Your task to perform on an android device: Toggle the flashlight Image 0: 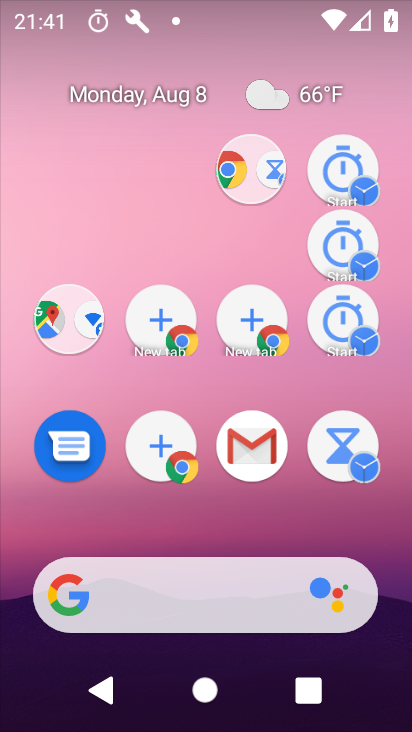
Step 0: drag from (290, 662) to (182, 129)
Your task to perform on an android device: Toggle the flashlight Image 1: 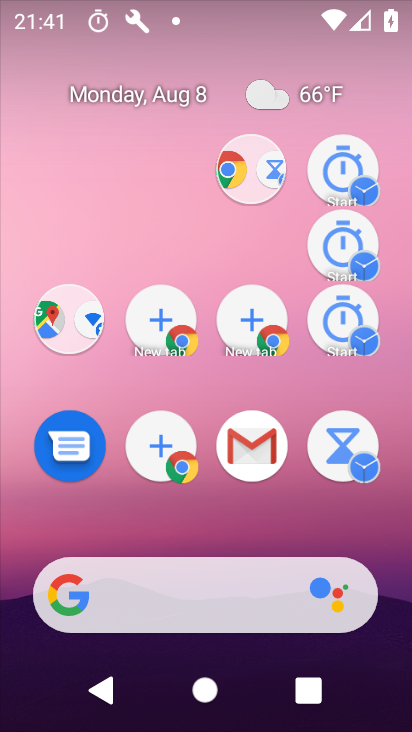
Step 1: task complete